Your task to perform on an android device: Open Google Maps and go to "Timeline" Image 0: 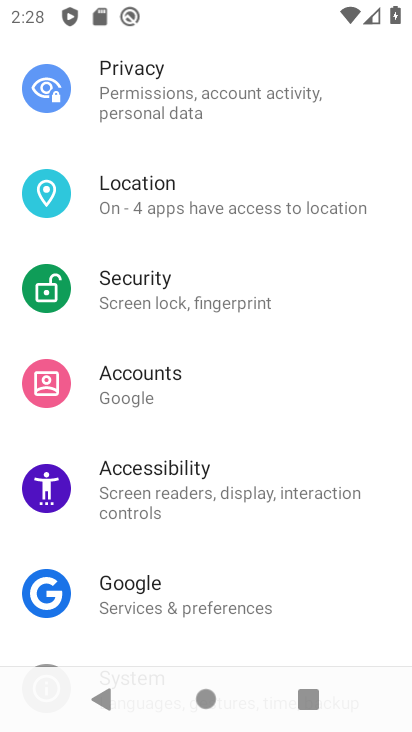
Step 0: press home button
Your task to perform on an android device: Open Google Maps and go to "Timeline" Image 1: 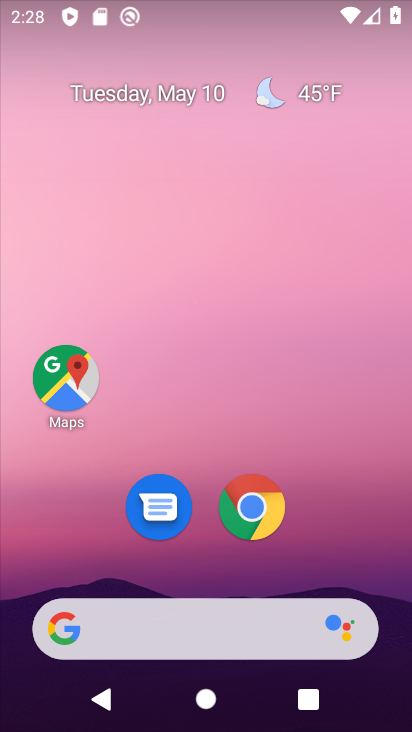
Step 1: click (66, 387)
Your task to perform on an android device: Open Google Maps and go to "Timeline" Image 2: 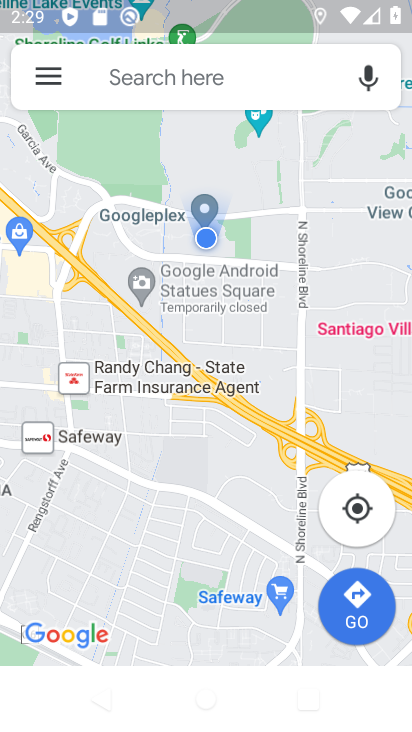
Step 2: click (60, 91)
Your task to perform on an android device: Open Google Maps and go to "Timeline" Image 3: 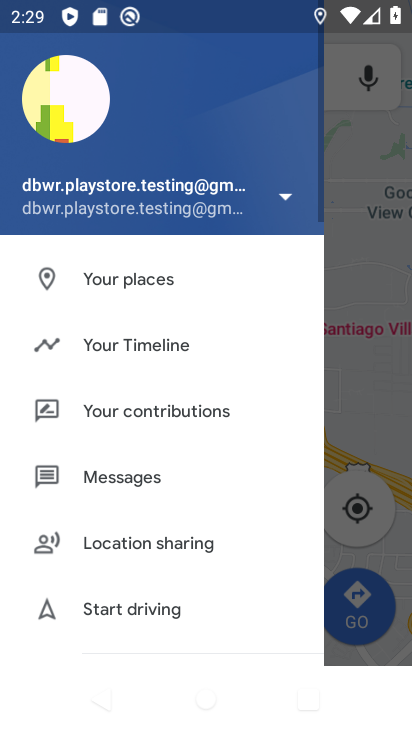
Step 3: click (133, 338)
Your task to perform on an android device: Open Google Maps and go to "Timeline" Image 4: 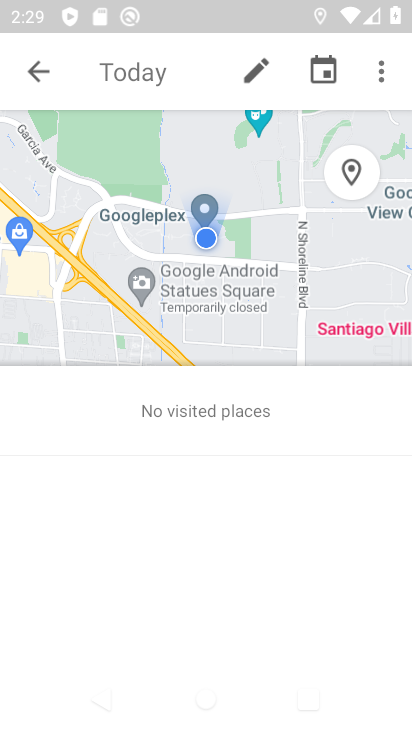
Step 4: task complete